Your task to perform on an android device: toggle notification dots Image 0: 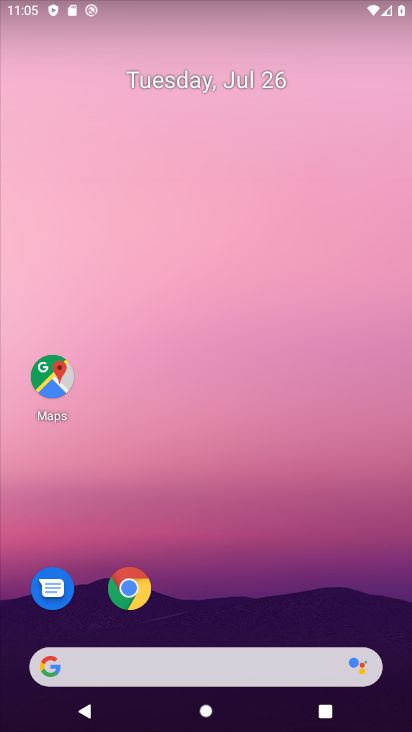
Step 0: drag from (178, 537) to (261, 4)
Your task to perform on an android device: toggle notification dots Image 1: 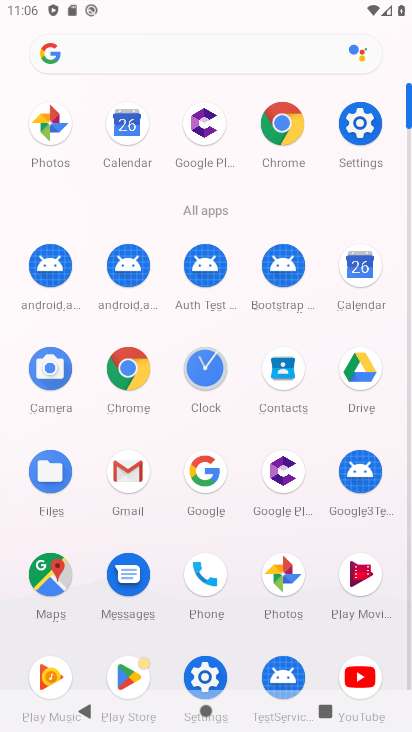
Step 1: click (354, 136)
Your task to perform on an android device: toggle notification dots Image 2: 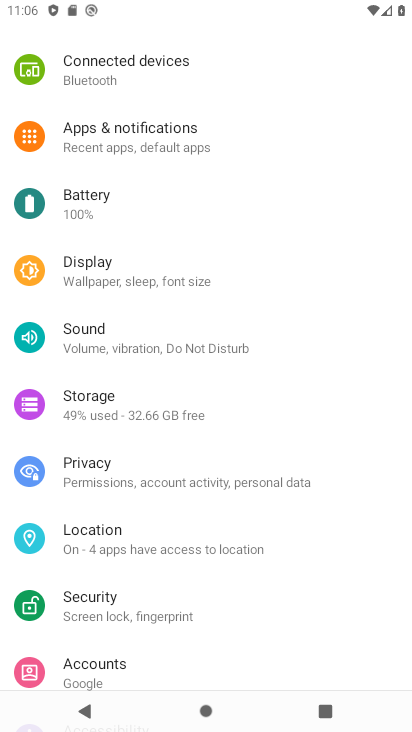
Step 2: click (176, 145)
Your task to perform on an android device: toggle notification dots Image 3: 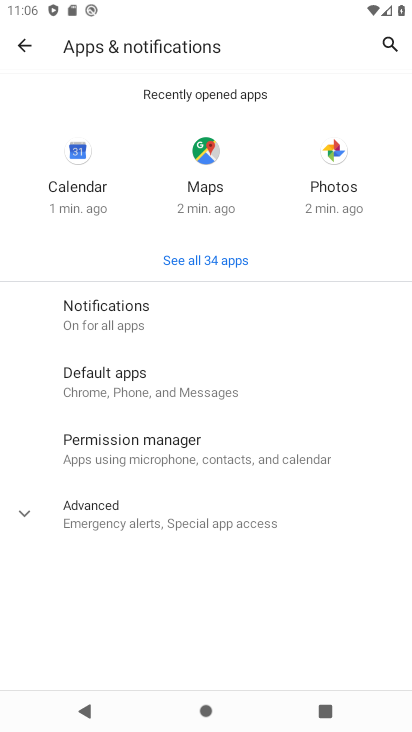
Step 3: click (98, 316)
Your task to perform on an android device: toggle notification dots Image 4: 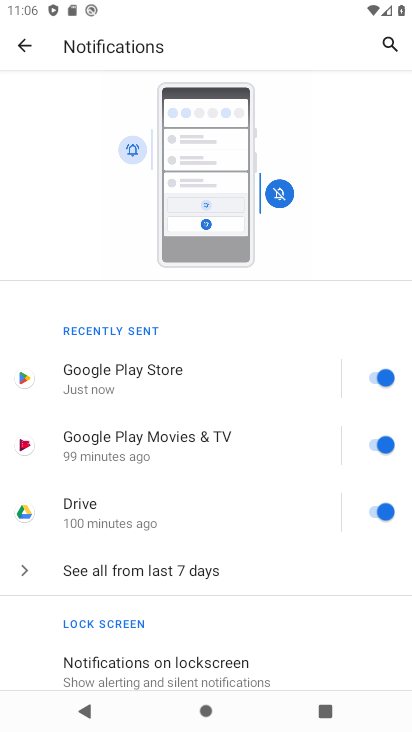
Step 4: drag from (130, 545) to (147, 381)
Your task to perform on an android device: toggle notification dots Image 5: 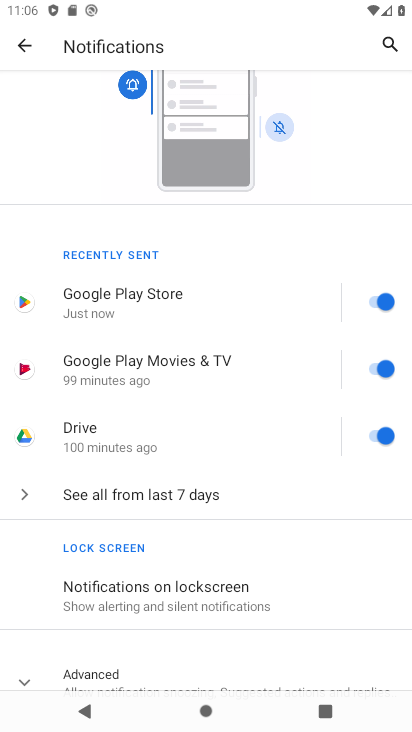
Step 5: drag from (151, 594) to (202, 274)
Your task to perform on an android device: toggle notification dots Image 6: 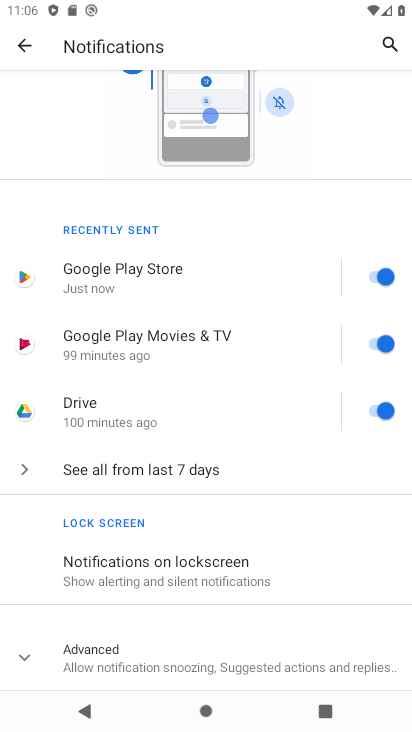
Step 6: click (84, 650)
Your task to perform on an android device: toggle notification dots Image 7: 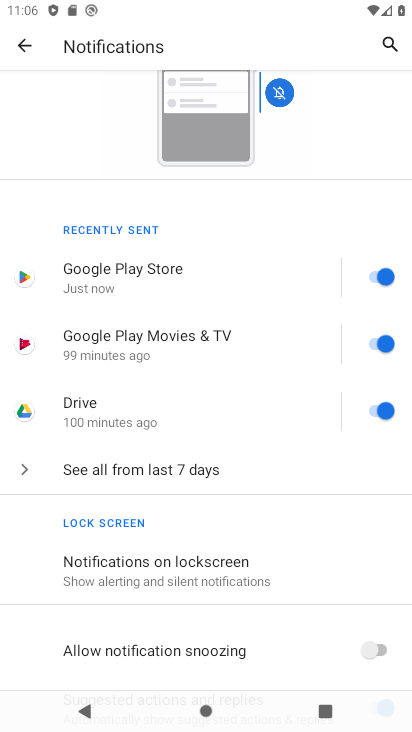
Step 7: drag from (113, 650) to (149, 386)
Your task to perform on an android device: toggle notification dots Image 8: 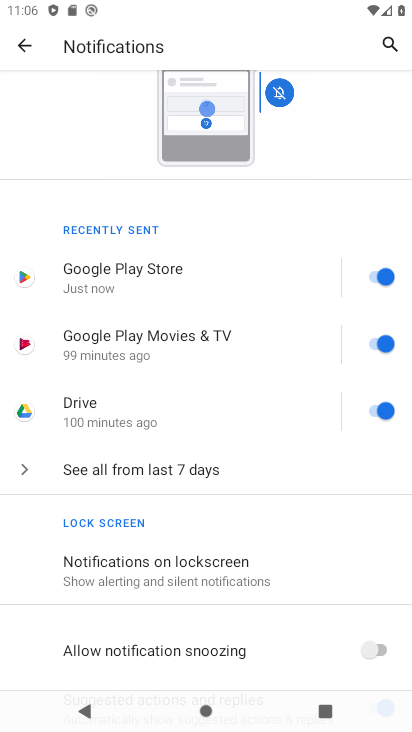
Step 8: drag from (213, 605) to (213, 397)
Your task to perform on an android device: toggle notification dots Image 9: 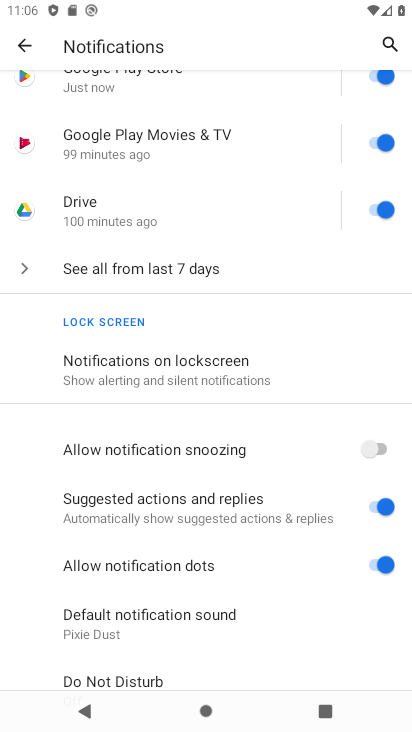
Step 9: click (376, 572)
Your task to perform on an android device: toggle notification dots Image 10: 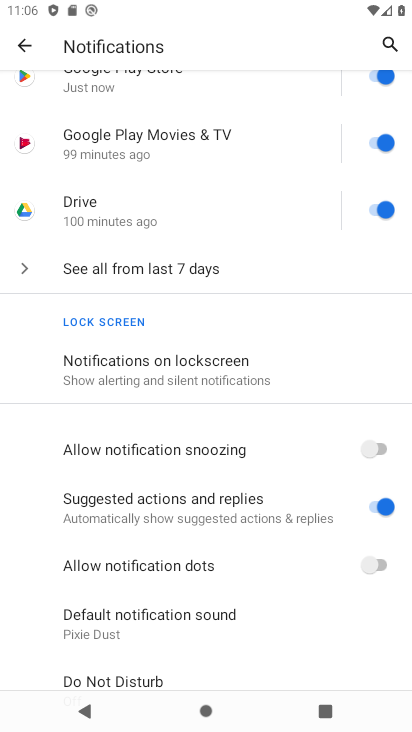
Step 10: task complete